Your task to perform on an android device: Go to wifi settings Image 0: 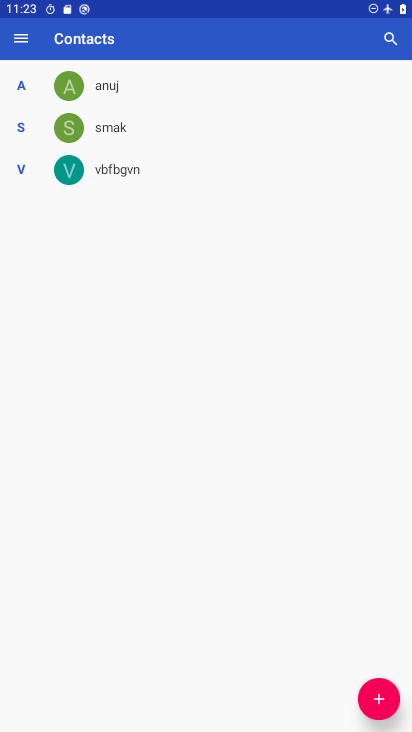
Step 0: press home button
Your task to perform on an android device: Go to wifi settings Image 1: 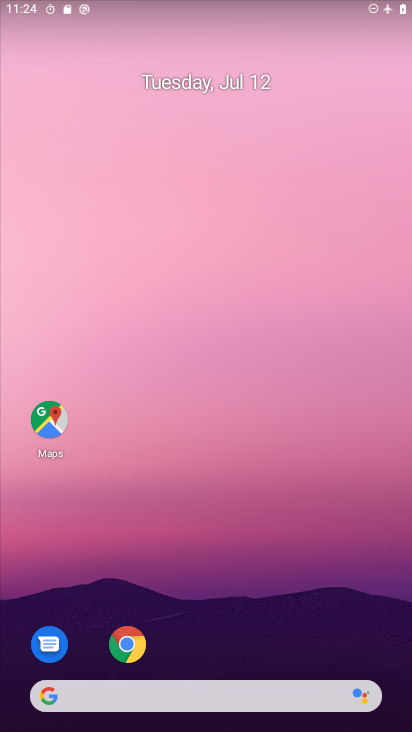
Step 1: drag from (213, 637) to (218, 225)
Your task to perform on an android device: Go to wifi settings Image 2: 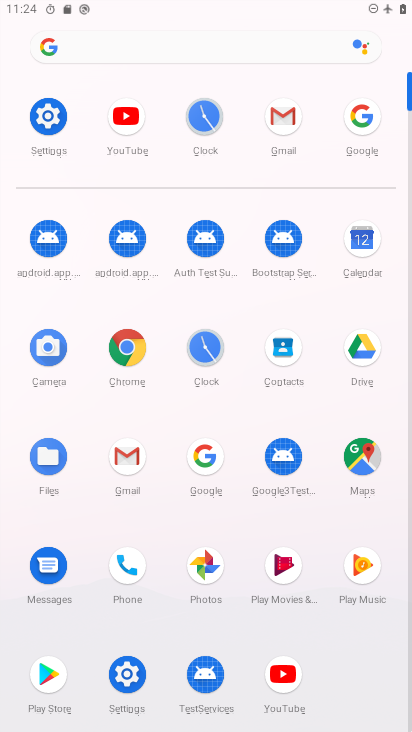
Step 2: click (53, 120)
Your task to perform on an android device: Go to wifi settings Image 3: 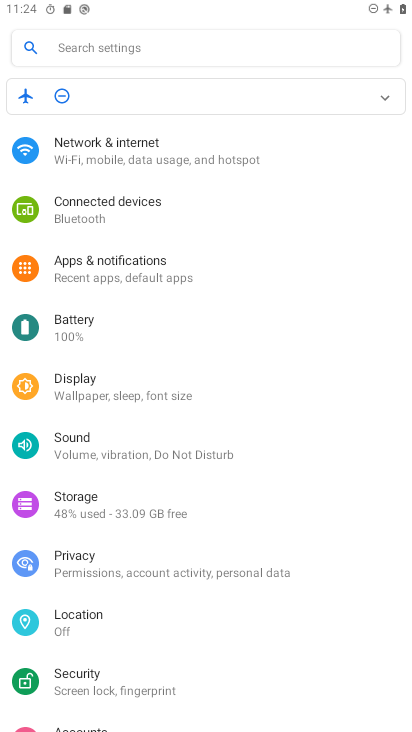
Step 3: click (138, 163)
Your task to perform on an android device: Go to wifi settings Image 4: 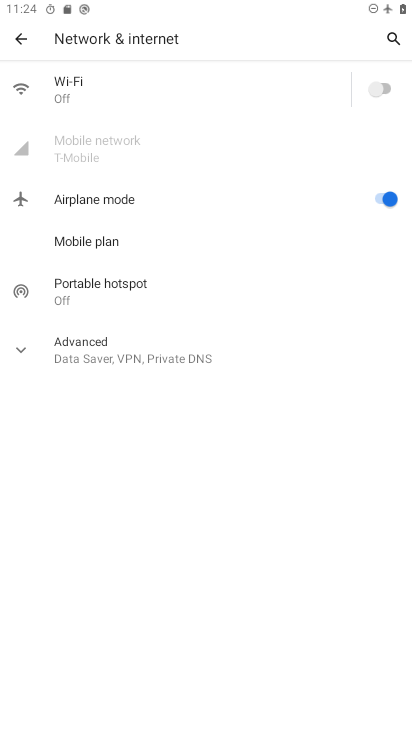
Step 4: click (128, 95)
Your task to perform on an android device: Go to wifi settings Image 5: 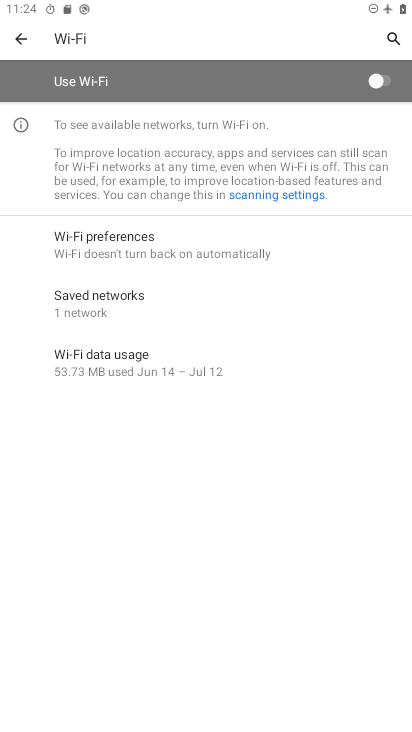
Step 5: task complete